Your task to perform on an android device: What is the recent news? Image 0: 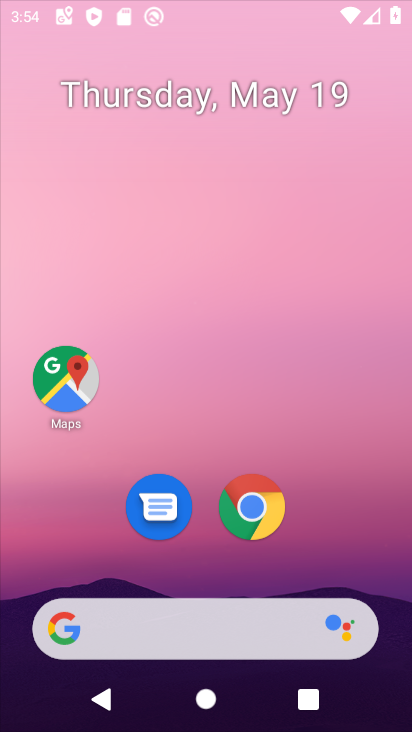
Step 0: click (284, 412)
Your task to perform on an android device: What is the recent news? Image 1: 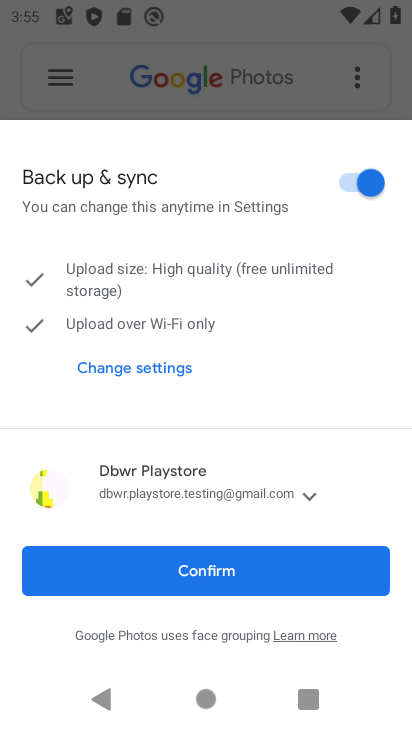
Step 1: press home button
Your task to perform on an android device: What is the recent news? Image 2: 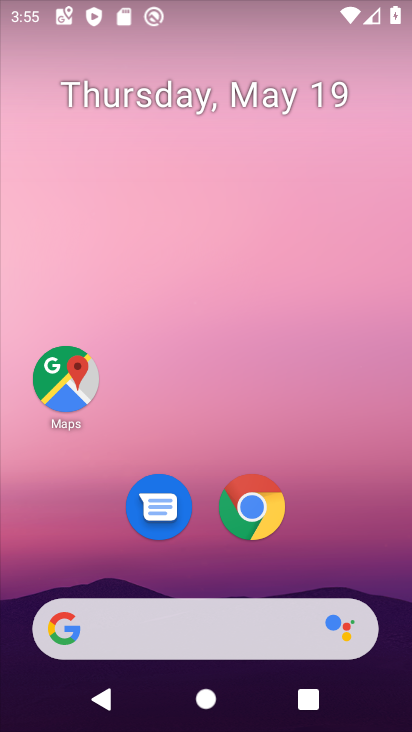
Step 2: drag from (389, 511) to (403, 225)
Your task to perform on an android device: What is the recent news? Image 3: 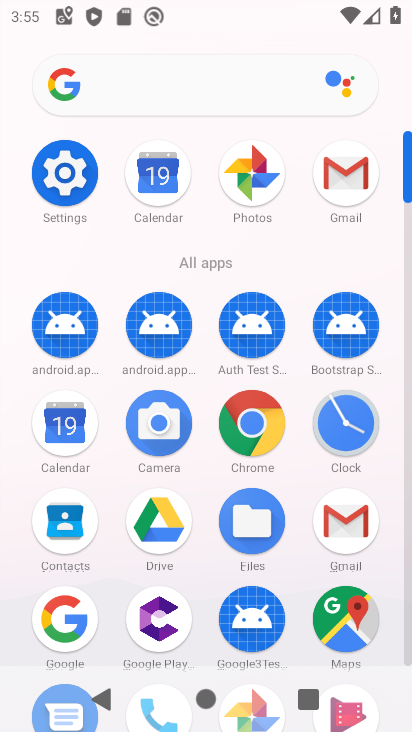
Step 3: click (75, 622)
Your task to perform on an android device: What is the recent news? Image 4: 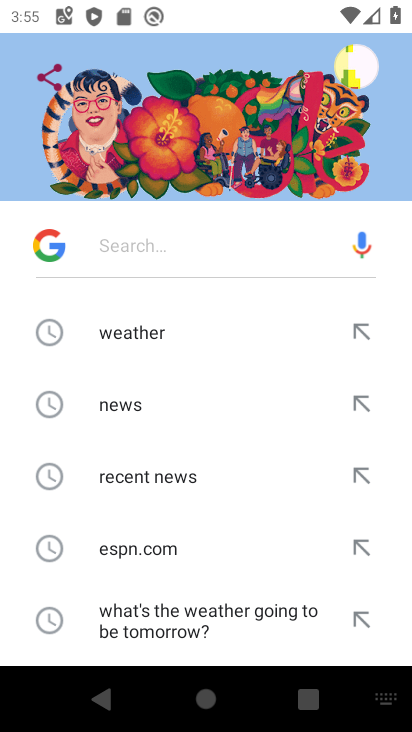
Step 4: click (130, 396)
Your task to perform on an android device: What is the recent news? Image 5: 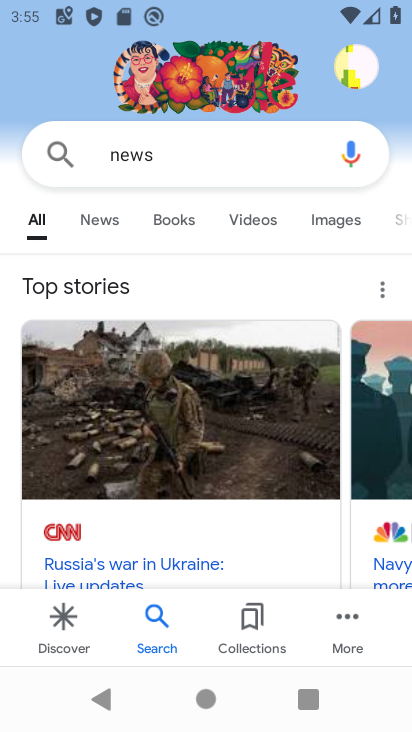
Step 5: task complete